Your task to perform on an android device: Search for a new lawnmower on home depot Image 0: 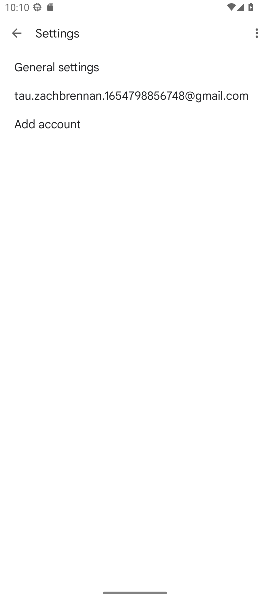
Step 0: press home button
Your task to perform on an android device: Search for a new lawnmower on home depot Image 1: 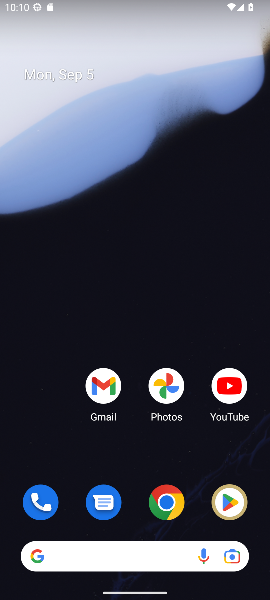
Step 1: click (191, 10)
Your task to perform on an android device: Search for a new lawnmower on home depot Image 2: 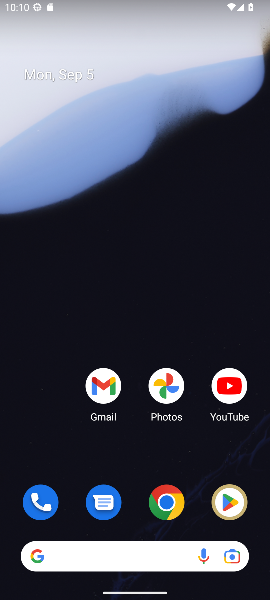
Step 2: drag from (257, 514) to (193, 16)
Your task to perform on an android device: Search for a new lawnmower on home depot Image 3: 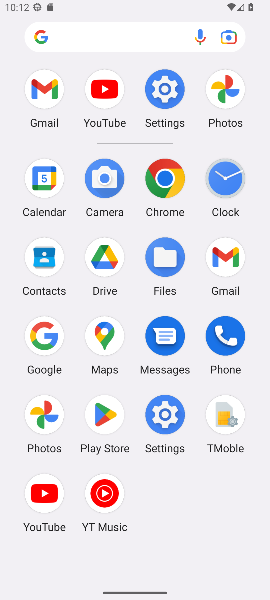
Step 3: click (52, 346)
Your task to perform on an android device: Search for a new lawnmower on home depot Image 4: 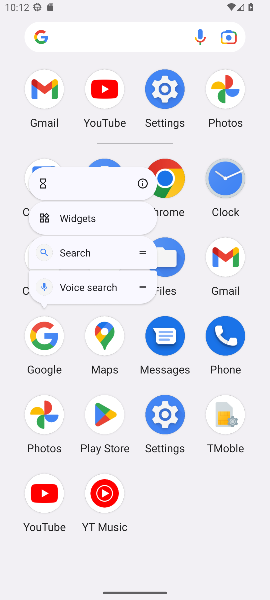
Step 4: click (52, 346)
Your task to perform on an android device: Search for a new lawnmower on home depot Image 5: 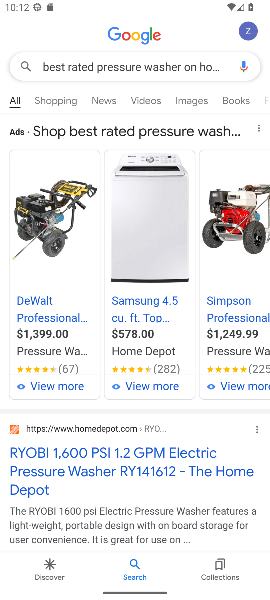
Step 5: press back button
Your task to perform on an android device: Search for a new lawnmower on home depot Image 6: 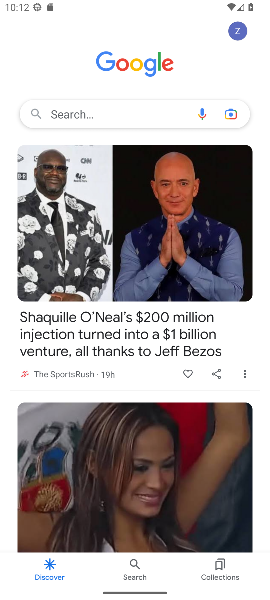
Step 6: click (83, 114)
Your task to perform on an android device: Search for a new lawnmower on home depot Image 7: 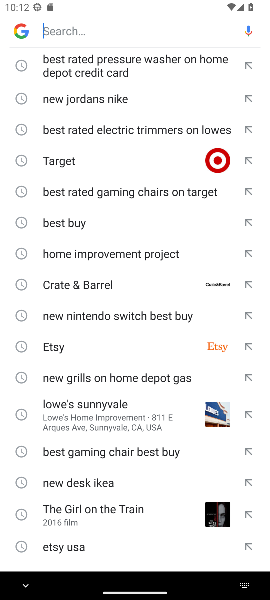
Step 7: type "new lawnmower on home depot"
Your task to perform on an android device: Search for a new lawnmower on home depot Image 8: 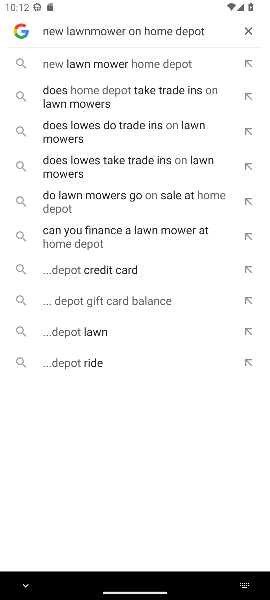
Step 8: click (147, 68)
Your task to perform on an android device: Search for a new lawnmower on home depot Image 9: 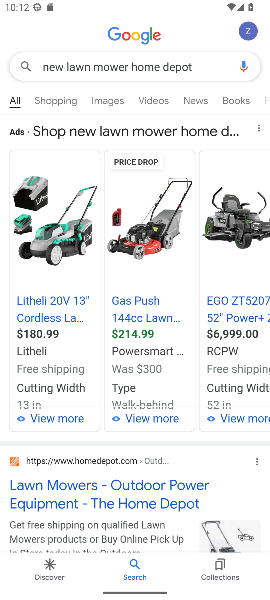
Step 9: task complete